Your task to perform on an android device: open wifi settings Image 0: 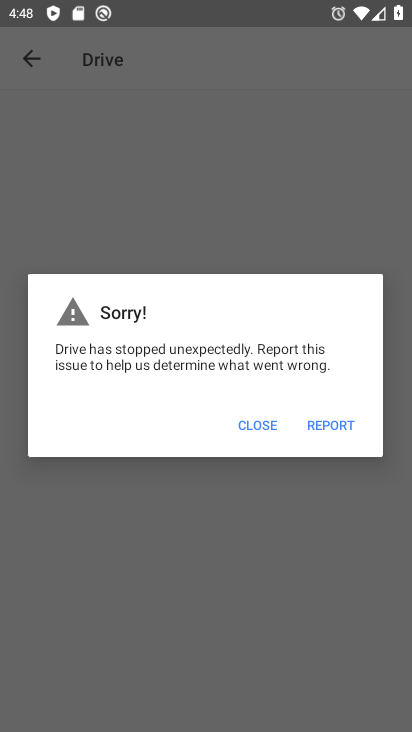
Step 0: press home button
Your task to perform on an android device: open wifi settings Image 1: 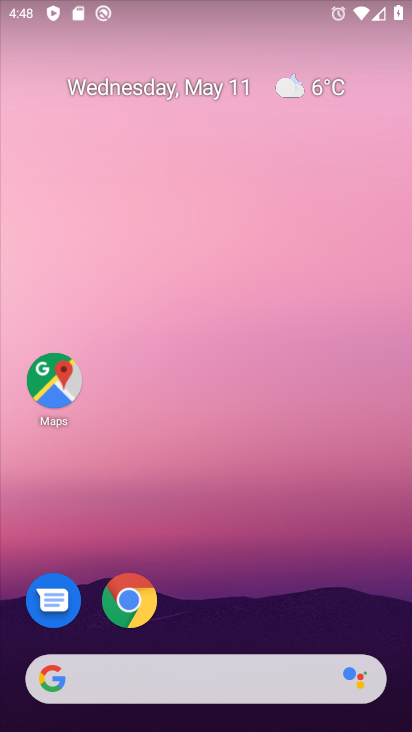
Step 1: drag from (237, 514) to (286, 102)
Your task to perform on an android device: open wifi settings Image 2: 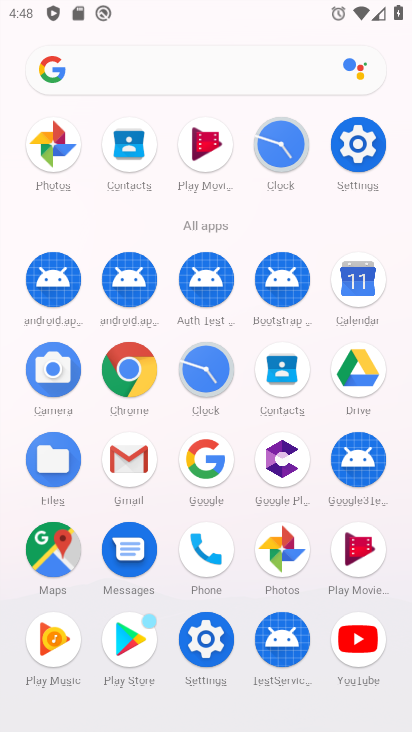
Step 2: click (363, 148)
Your task to perform on an android device: open wifi settings Image 3: 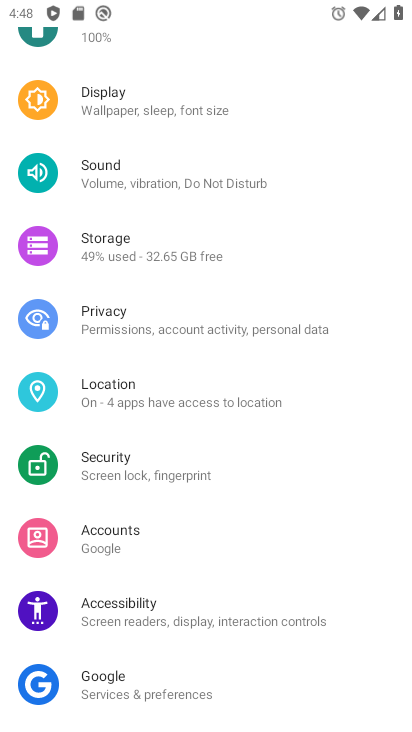
Step 3: drag from (186, 94) to (209, 609)
Your task to perform on an android device: open wifi settings Image 4: 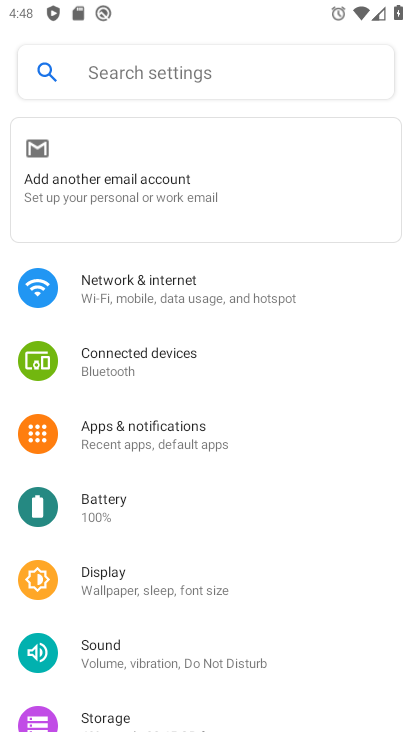
Step 4: click (159, 266)
Your task to perform on an android device: open wifi settings Image 5: 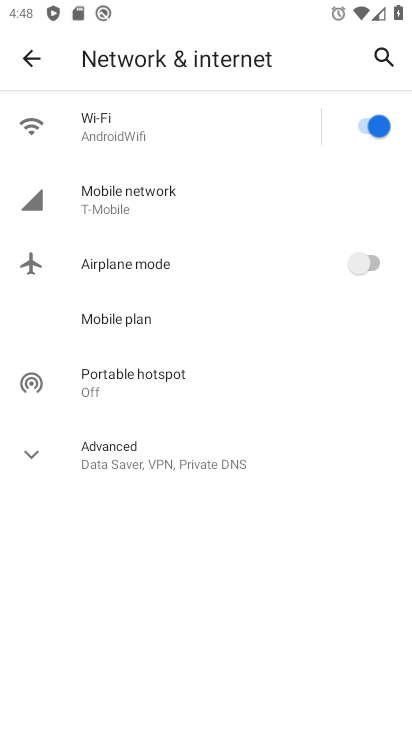
Step 5: click (234, 149)
Your task to perform on an android device: open wifi settings Image 6: 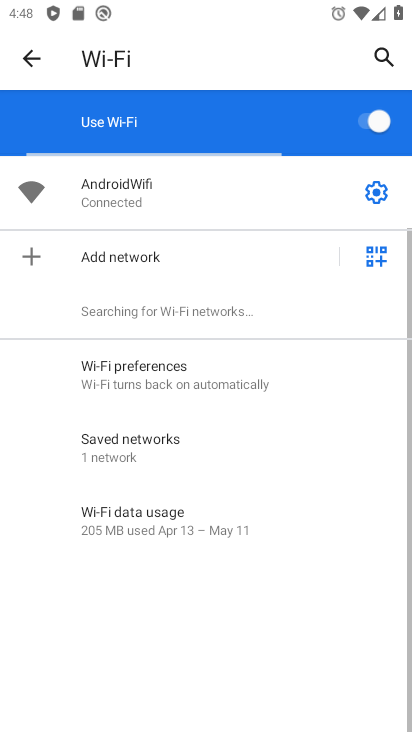
Step 6: click (375, 190)
Your task to perform on an android device: open wifi settings Image 7: 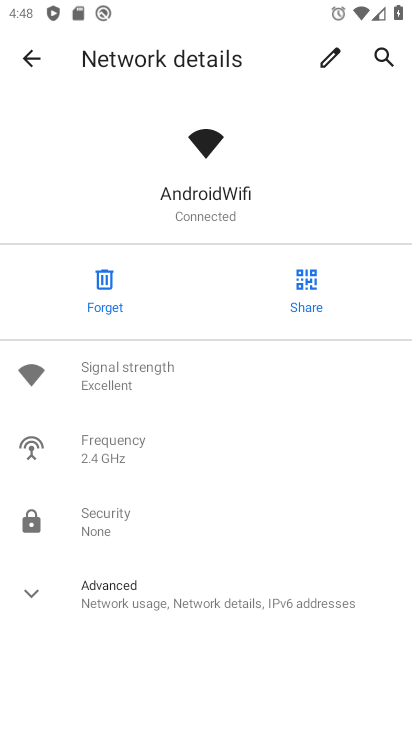
Step 7: task complete